Your task to perform on an android device: Open Google Maps Image 0: 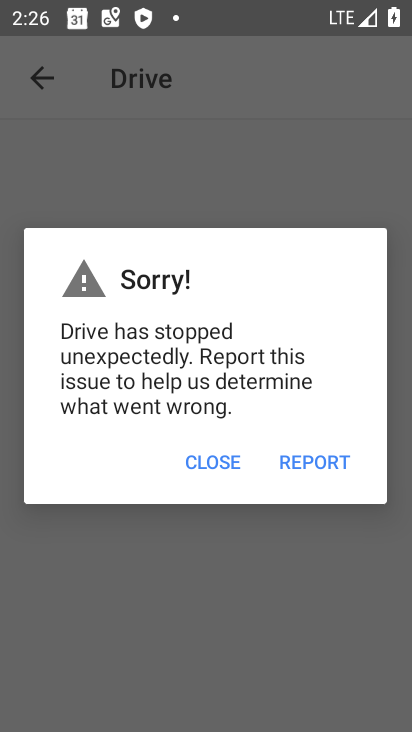
Step 0: press home button
Your task to perform on an android device: Open Google Maps Image 1: 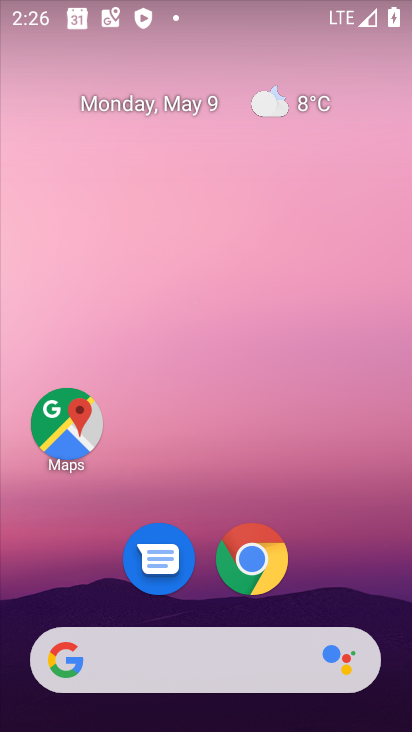
Step 1: click (60, 427)
Your task to perform on an android device: Open Google Maps Image 2: 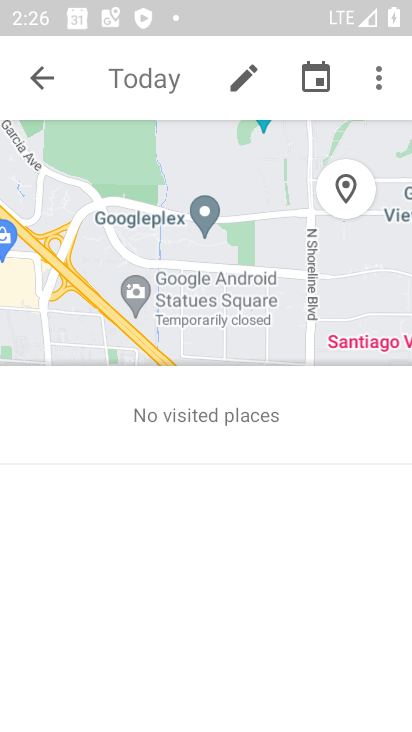
Step 2: task complete